Your task to perform on an android device: Turn on the flashlight Image 0: 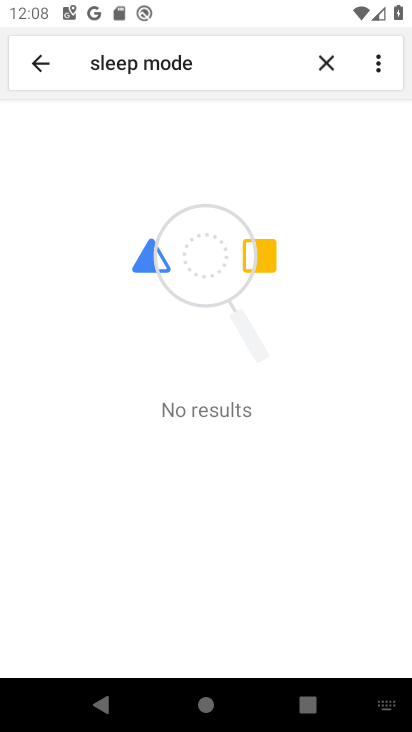
Step 0: click (325, 66)
Your task to perform on an android device: Turn on the flashlight Image 1: 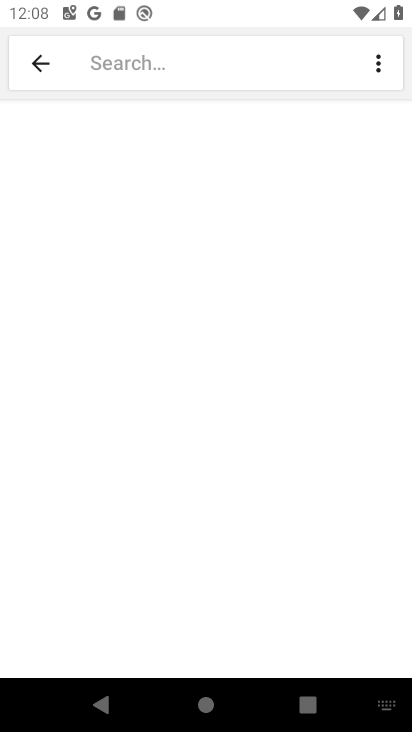
Step 1: type "flashlight"
Your task to perform on an android device: Turn on the flashlight Image 2: 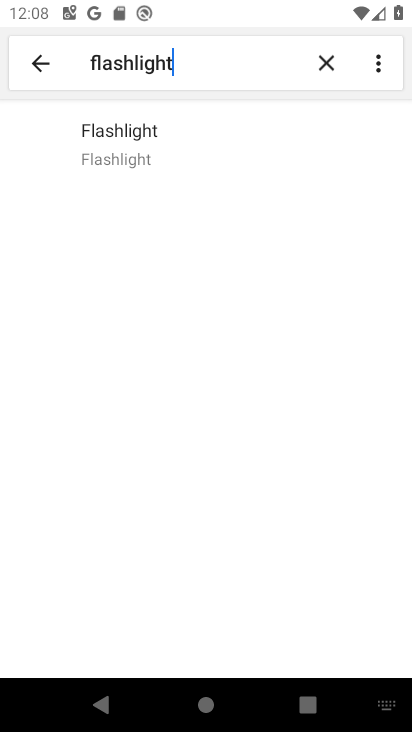
Step 2: click (191, 148)
Your task to perform on an android device: Turn on the flashlight Image 3: 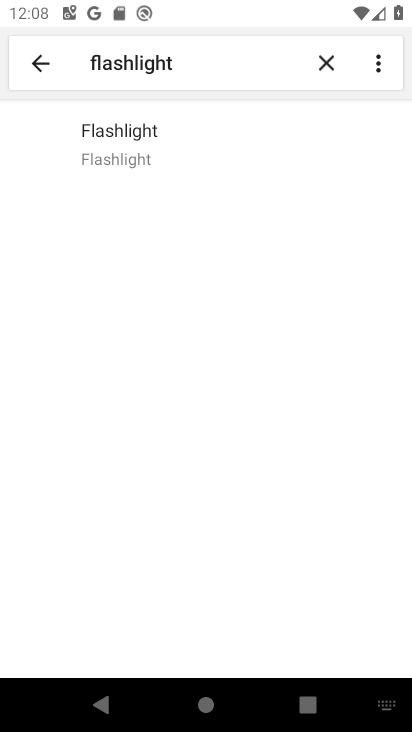
Step 3: click (191, 148)
Your task to perform on an android device: Turn on the flashlight Image 4: 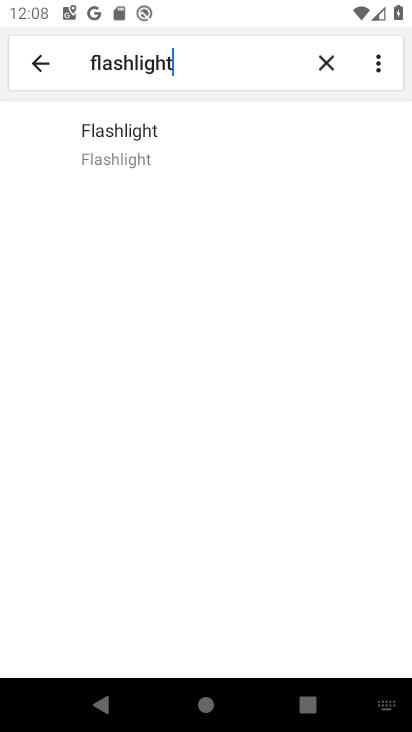
Step 4: task complete